Your task to perform on an android device: Open the Play Movies app and select the watchlist tab. Image 0: 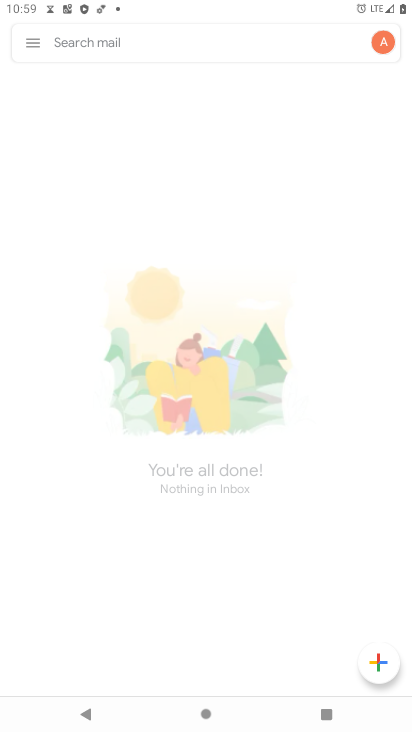
Step 0: press home button
Your task to perform on an android device: Open the Play Movies app and select the watchlist tab. Image 1: 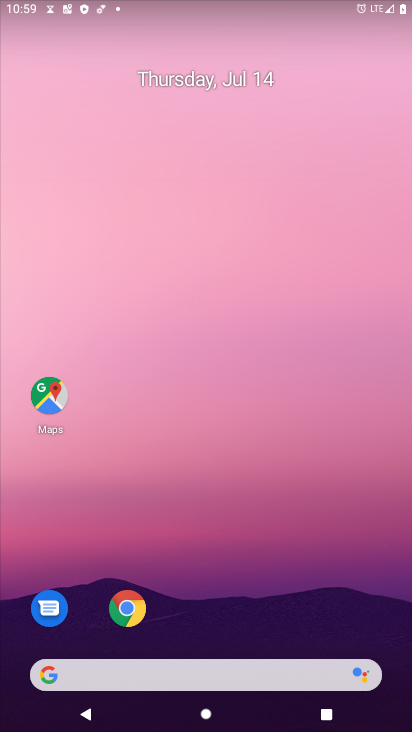
Step 1: drag from (239, 719) to (242, 194)
Your task to perform on an android device: Open the Play Movies app and select the watchlist tab. Image 2: 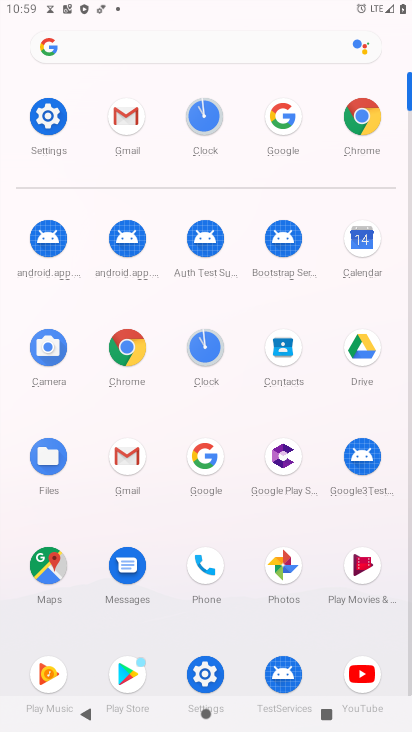
Step 2: click (357, 569)
Your task to perform on an android device: Open the Play Movies app and select the watchlist tab. Image 3: 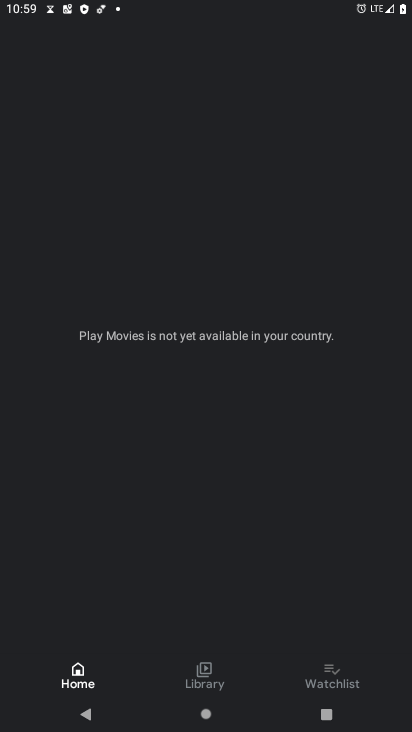
Step 3: click (327, 664)
Your task to perform on an android device: Open the Play Movies app and select the watchlist tab. Image 4: 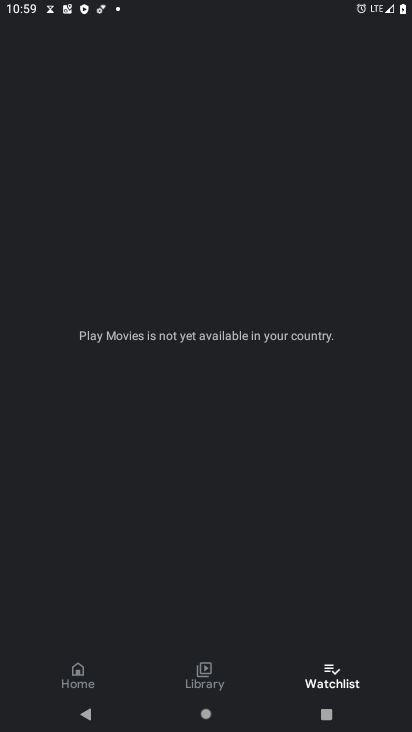
Step 4: task complete